Your task to perform on an android device: turn on notifications settings in the gmail app Image 0: 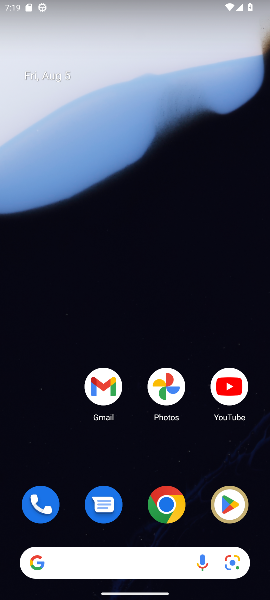
Step 0: click (111, 398)
Your task to perform on an android device: turn on notifications settings in the gmail app Image 1: 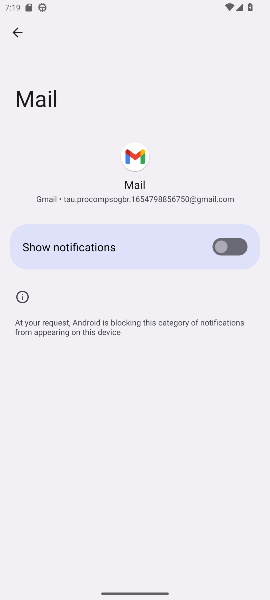
Step 1: click (229, 248)
Your task to perform on an android device: turn on notifications settings in the gmail app Image 2: 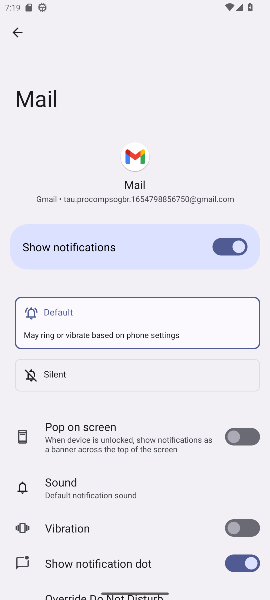
Step 2: task complete